Your task to perform on an android device: Is it going to rain this weekend? Image 0: 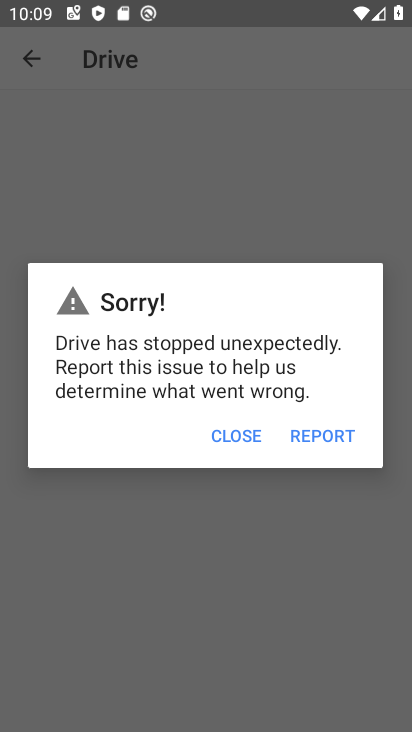
Step 0: press home button
Your task to perform on an android device: Is it going to rain this weekend? Image 1: 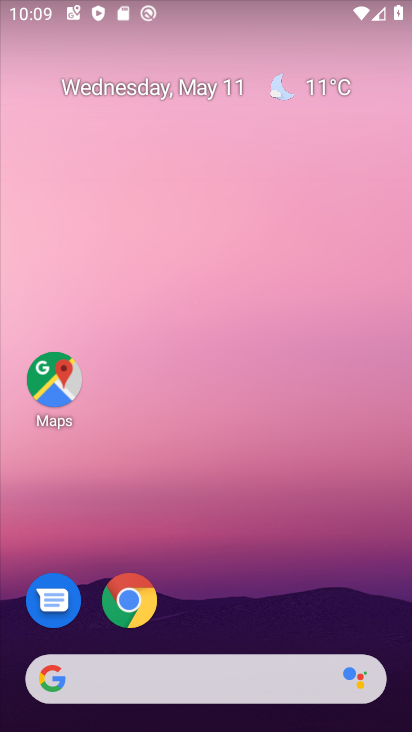
Step 1: click (316, 93)
Your task to perform on an android device: Is it going to rain this weekend? Image 2: 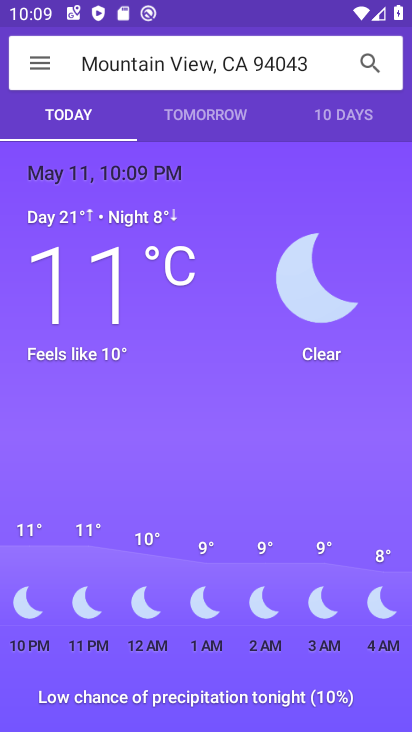
Step 2: click (360, 119)
Your task to perform on an android device: Is it going to rain this weekend? Image 3: 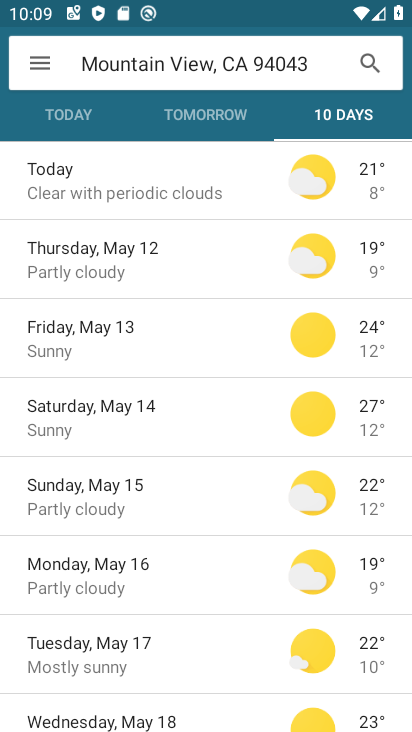
Step 3: task complete